Your task to perform on an android device: install app "PlayWell" Image 0: 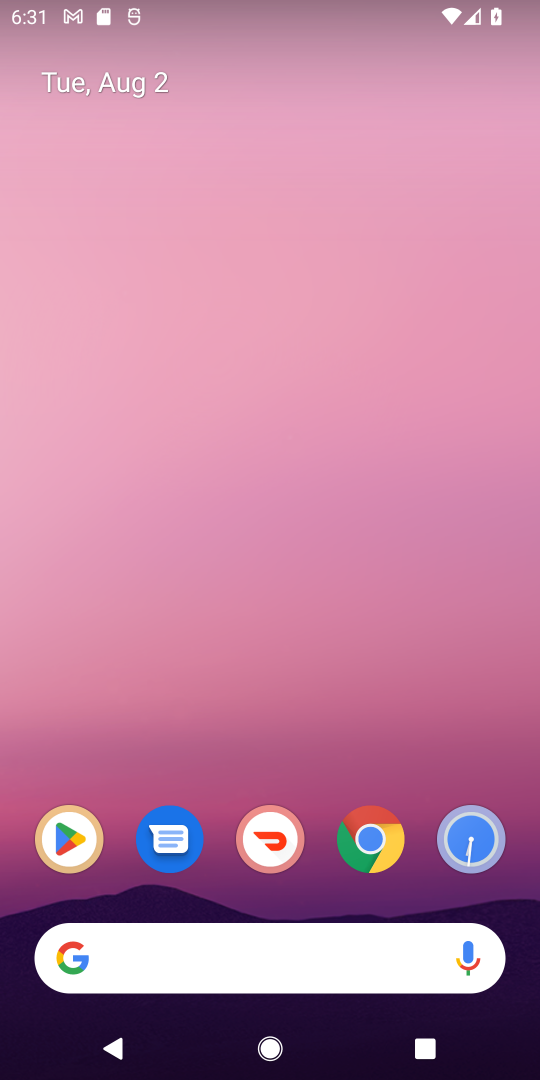
Step 0: click (83, 830)
Your task to perform on an android device: install app "PlayWell" Image 1: 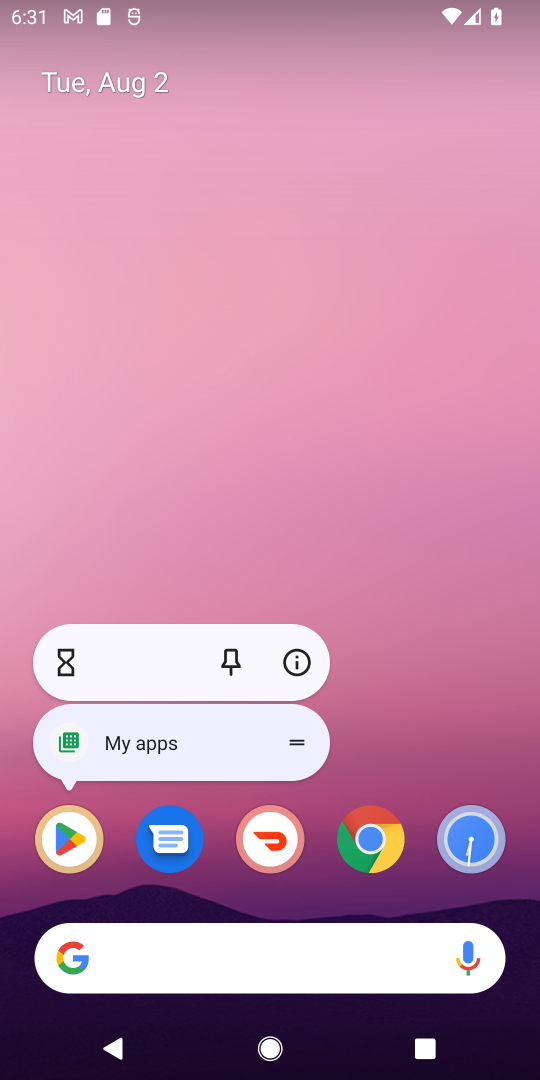
Step 1: click (66, 835)
Your task to perform on an android device: install app "PlayWell" Image 2: 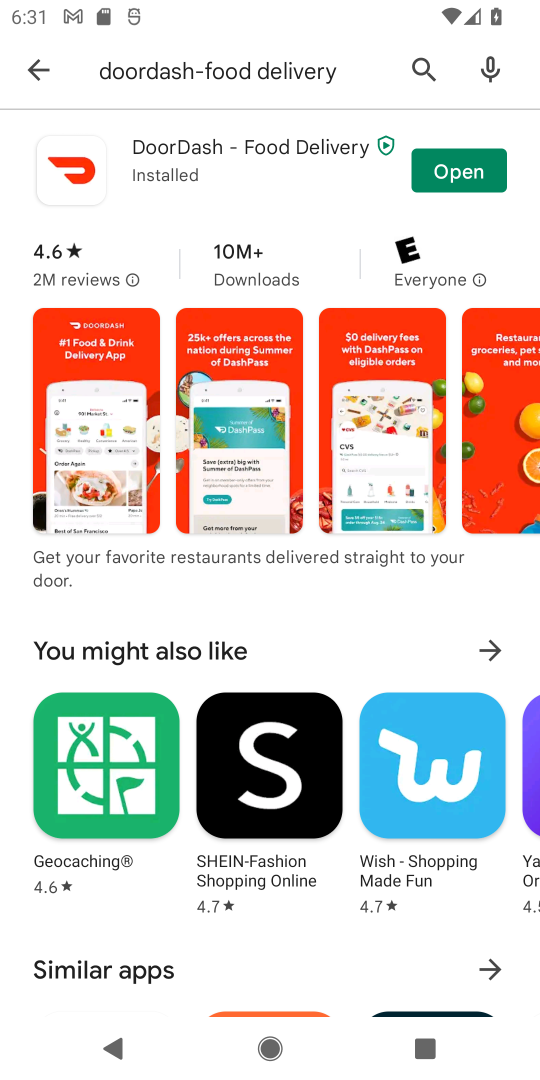
Step 2: click (212, 38)
Your task to perform on an android device: install app "PlayWell" Image 3: 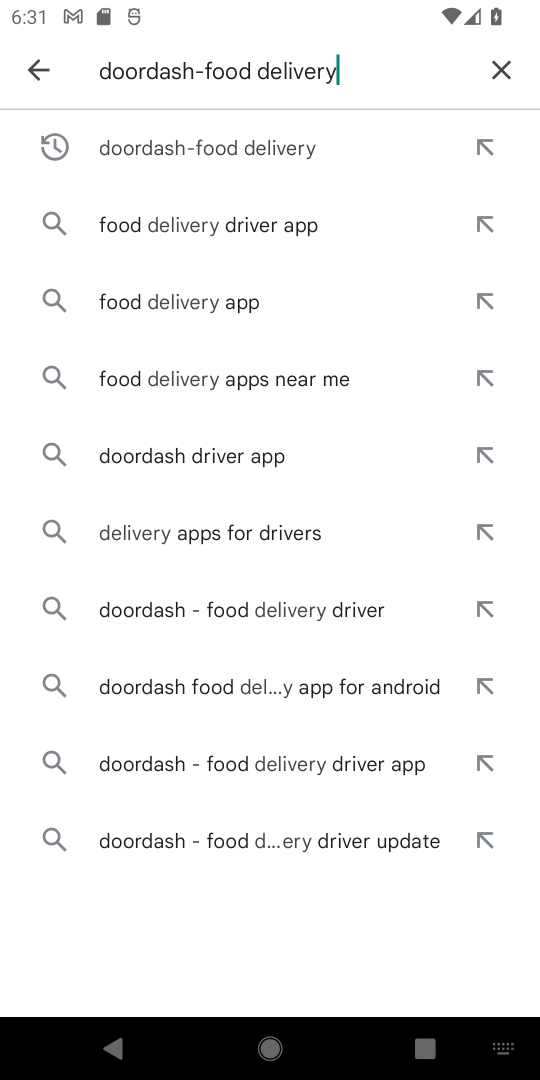
Step 3: click (489, 65)
Your task to perform on an android device: install app "PlayWell" Image 4: 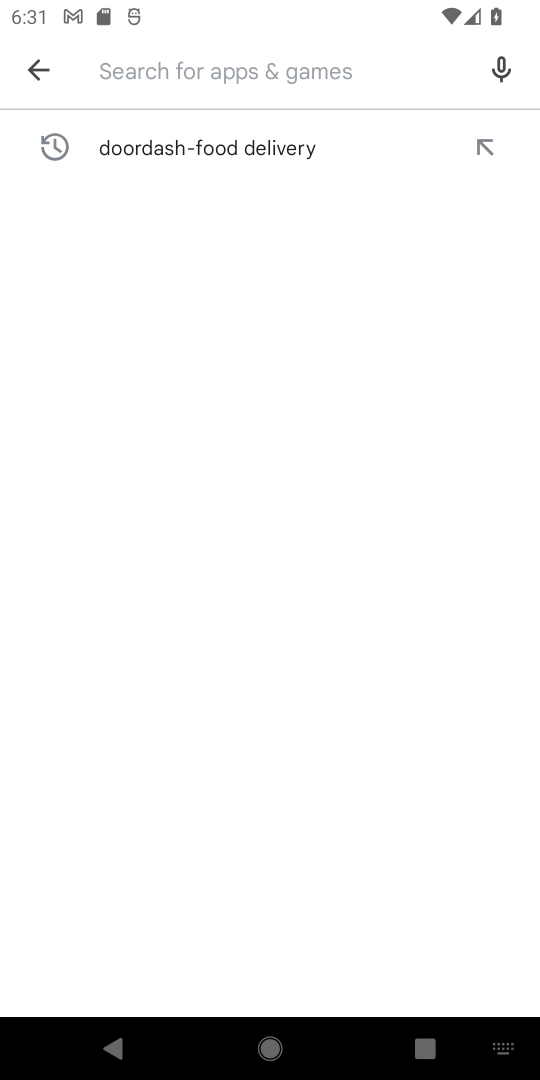
Step 4: type "Playwell"
Your task to perform on an android device: install app "PlayWell" Image 5: 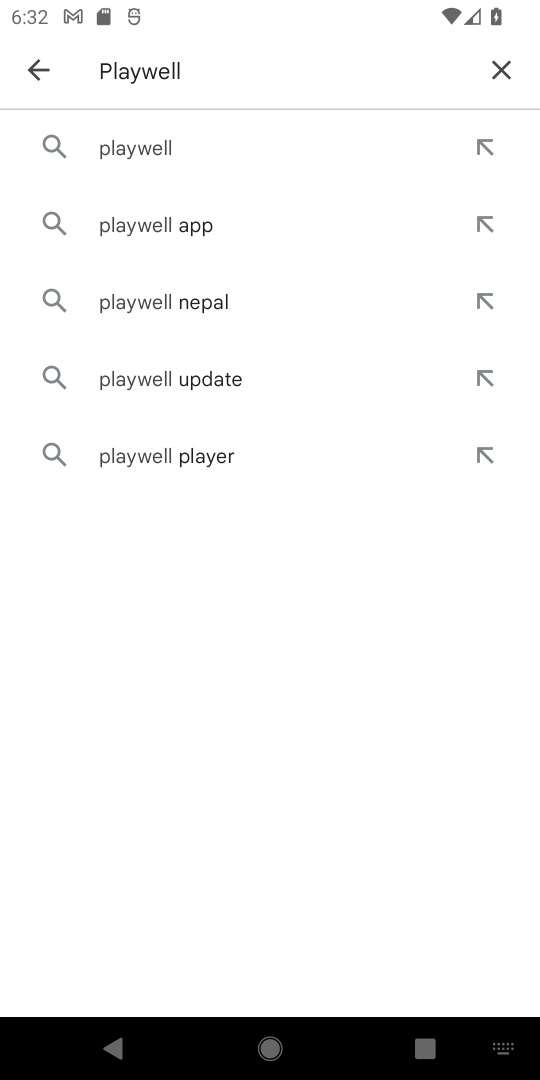
Step 5: click (171, 160)
Your task to perform on an android device: install app "PlayWell" Image 6: 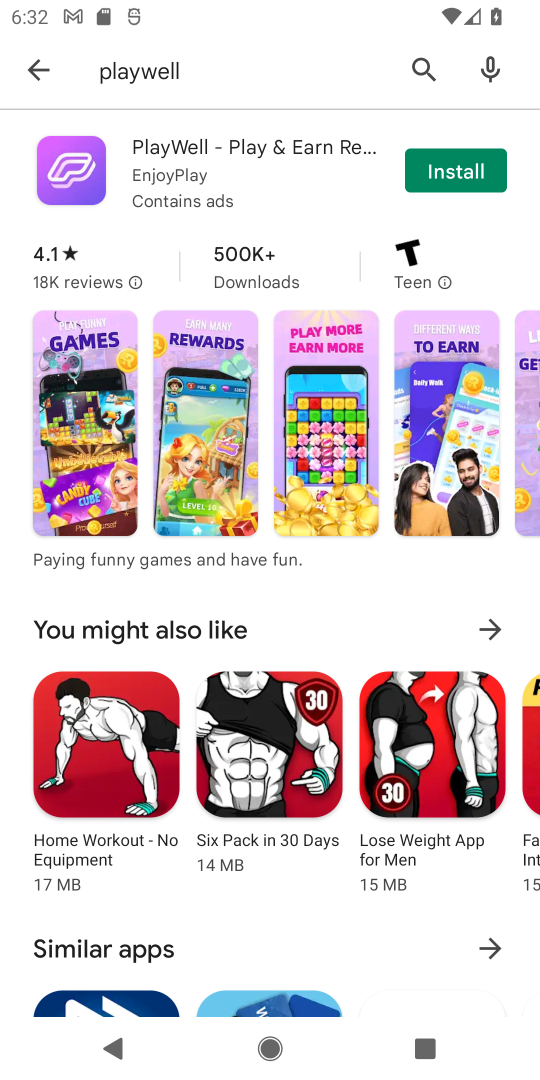
Step 6: click (472, 181)
Your task to perform on an android device: install app "PlayWell" Image 7: 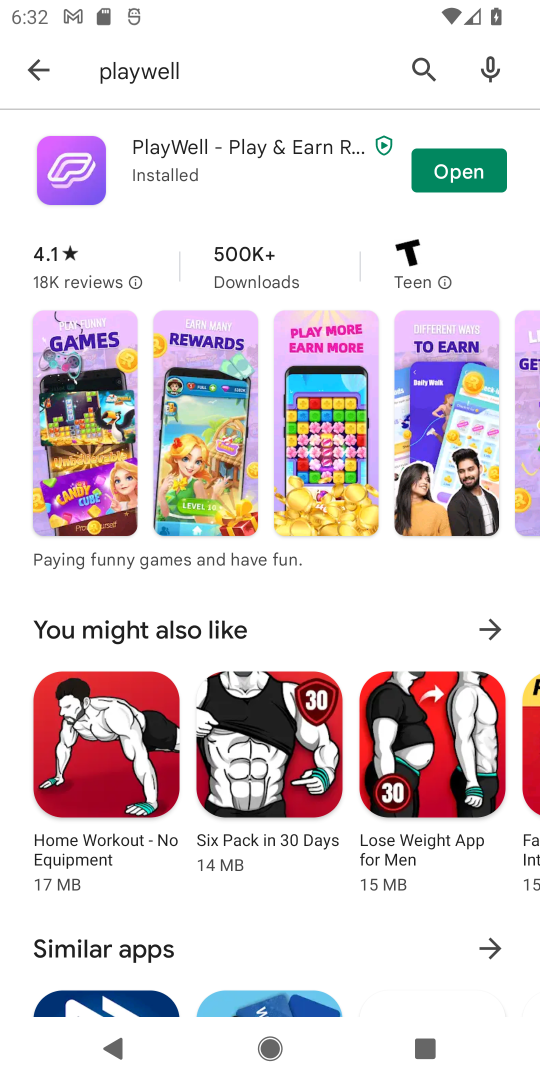
Step 7: task complete